Your task to perform on an android device: Open Chrome and go to settings Image 0: 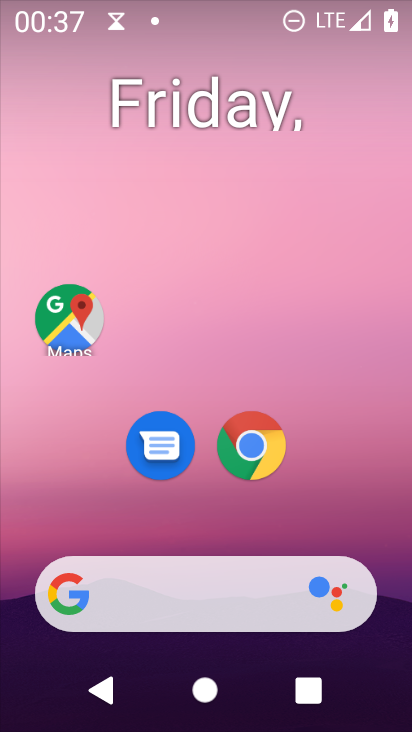
Step 0: click (251, 444)
Your task to perform on an android device: Open Chrome and go to settings Image 1: 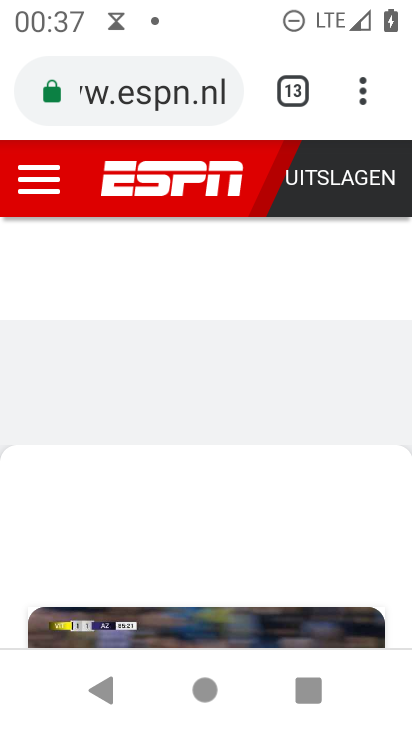
Step 1: click (364, 104)
Your task to perform on an android device: Open Chrome and go to settings Image 2: 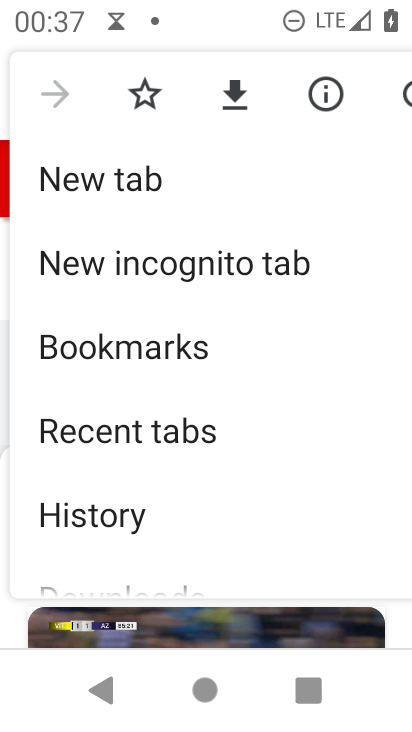
Step 2: drag from (168, 522) to (177, 139)
Your task to perform on an android device: Open Chrome and go to settings Image 3: 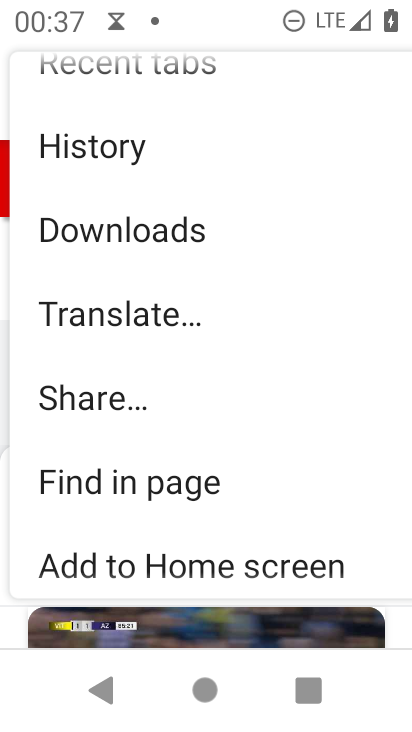
Step 3: drag from (140, 525) to (161, 144)
Your task to perform on an android device: Open Chrome and go to settings Image 4: 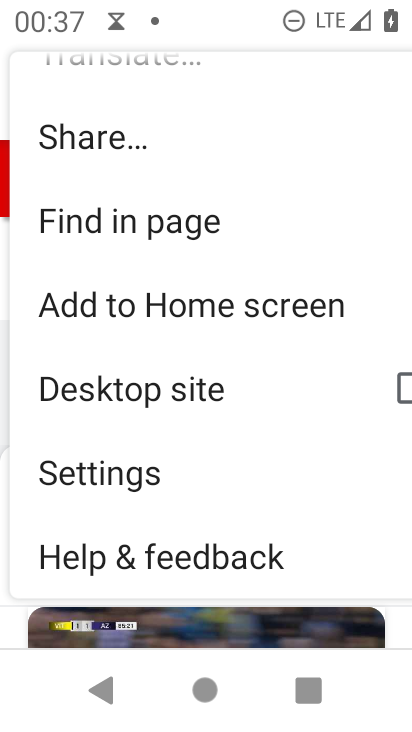
Step 4: click (110, 472)
Your task to perform on an android device: Open Chrome and go to settings Image 5: 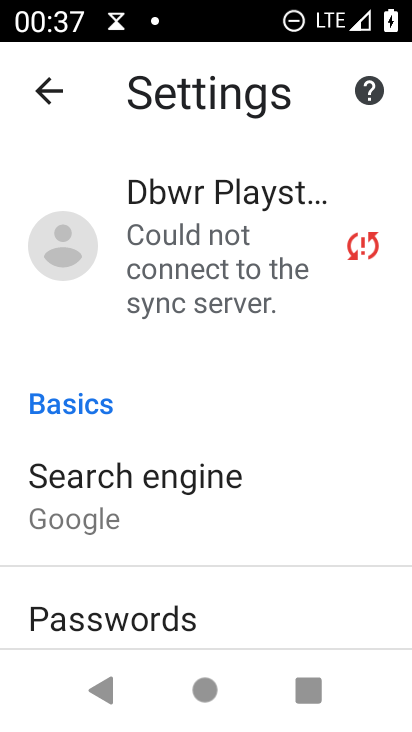
Step 5: task complete